Your task to perform on an android device: turn on wifi Image 0: 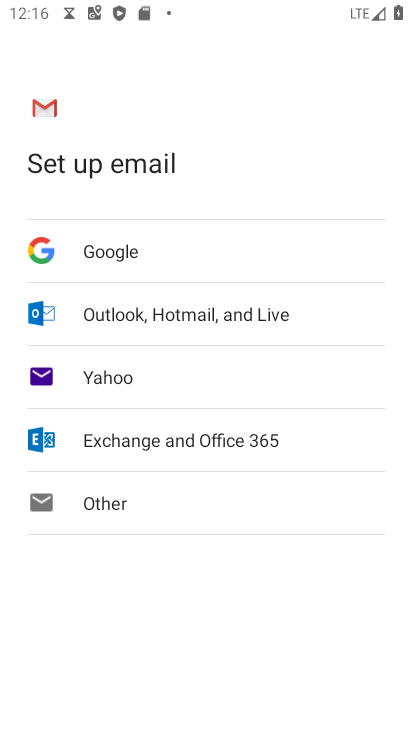
Step 0: press home button
Your task to perform on an android device: turn on wifi Image 1: 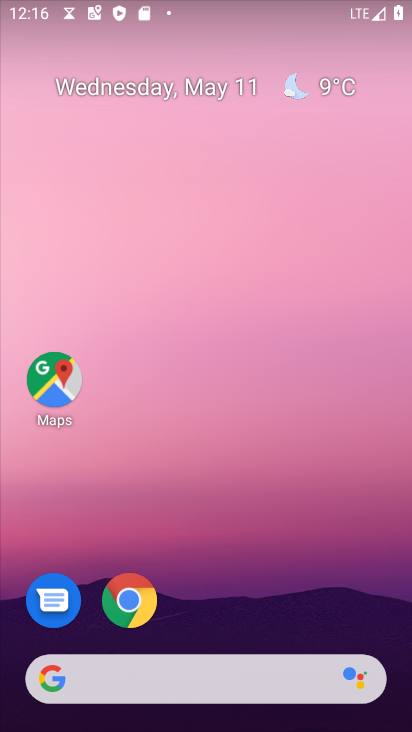
Step 1: drag from (269, 585) to (217, 72)
Your task to perform on an android device: turn on wifi Image 2: 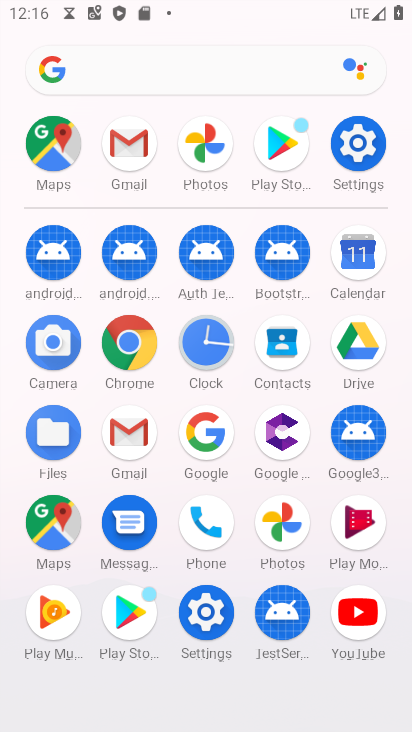
Step 2: click (354, 150)
Your task to perform on an android device: turn on wifi Image 3: 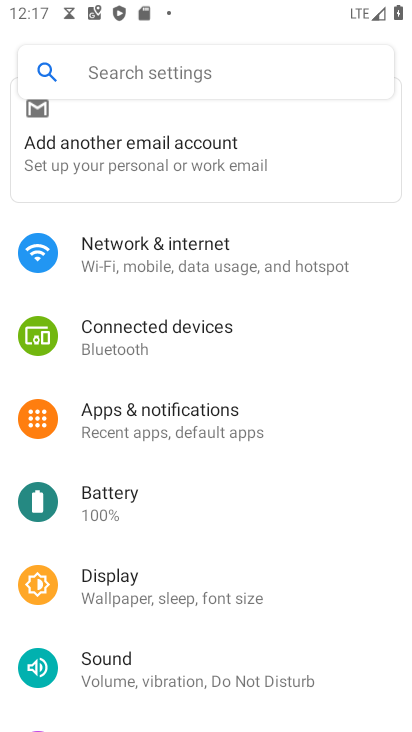
Step 3: click (159, 256)
Your task to perform on an android device: turn on wifi Image 4: 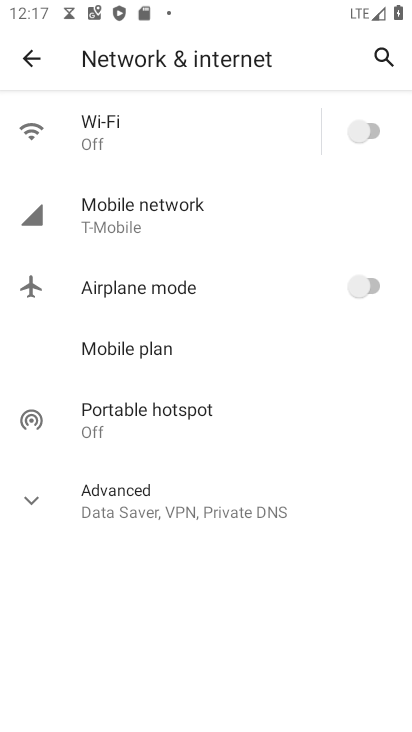
Step 4: click (372, 129)
Your task to perform on an android device: turn on wifi Image 5: 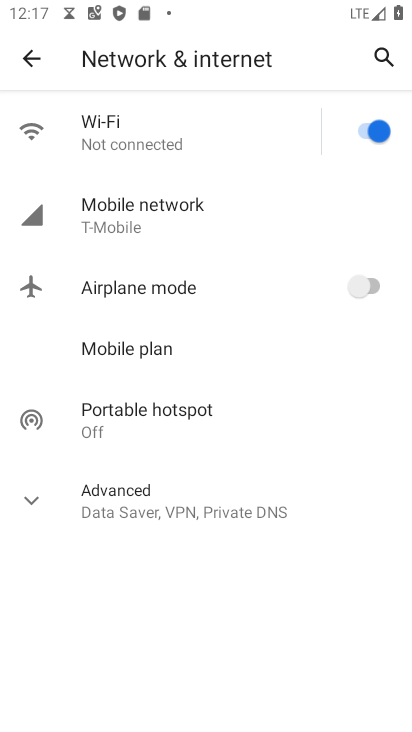
Step 5: task complete